Your task to perform on an android device: Clear all items from cart on walmart. Search for "apple airpods" on walmart, select the first entry, add it to the cart, then select checkout. Image 0: 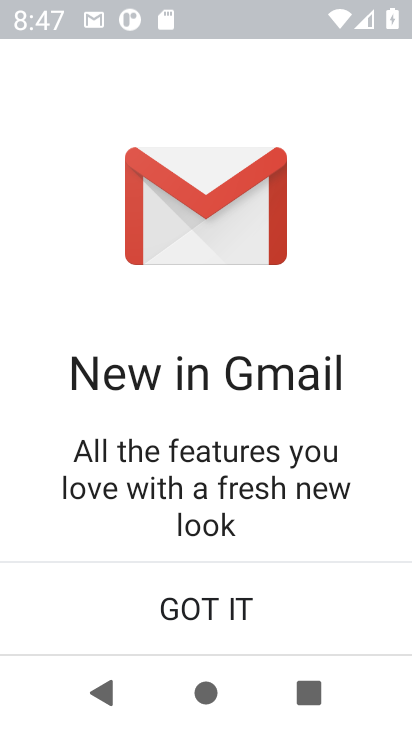
Step 0: press home button
Your task to perform on an android device: Clear all items from cart on walmart. Search for "apple airpods" on walmart, select the first entry, add it to the cart, then select checkout. Image 1: 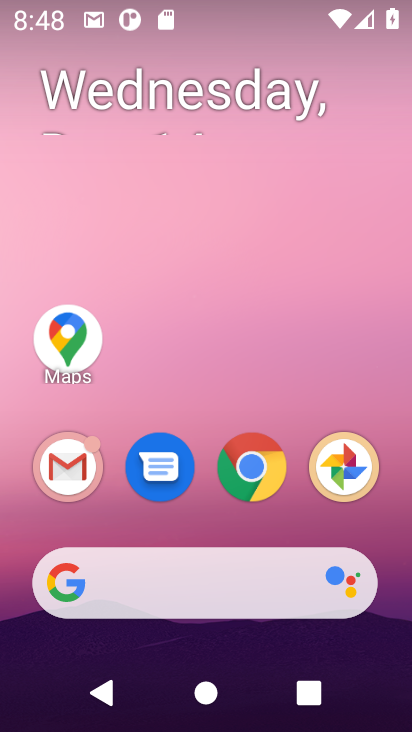
Step 1: click (267, 486)
Your task to perform on an android device: Clear all items from cart on walmart. Search for "apple airpods" on walmart, select the first entry, add it to the cart, then select checkout. Image 2: 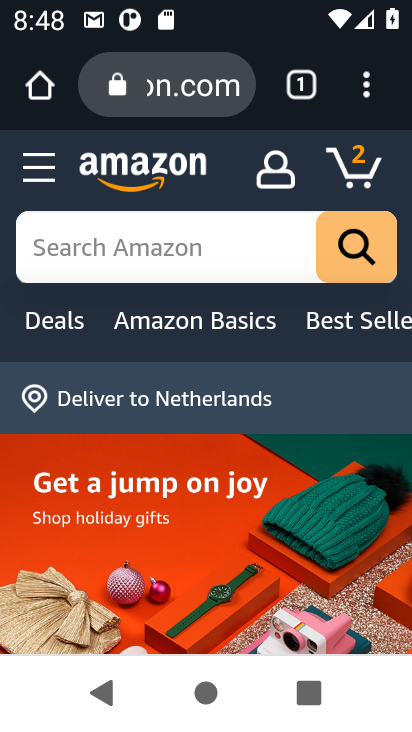
Step 2: click (172, 108)
Your task to perform on an android device: Clear all items from cart on walmart. Search for "apple airpods" on walmart, select the first entry, add it to the cart, then select checkout. Image 3: 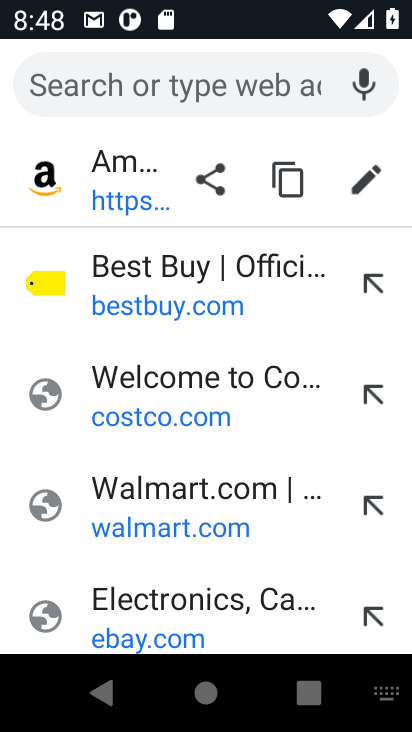
Step 3: click (207, 479)
Your task to perform on an android device: Clear all items from cart on walmart. Search for "apple airpods" on walmart, select the first entry, add it to the cart, then select checkout. Image 4: 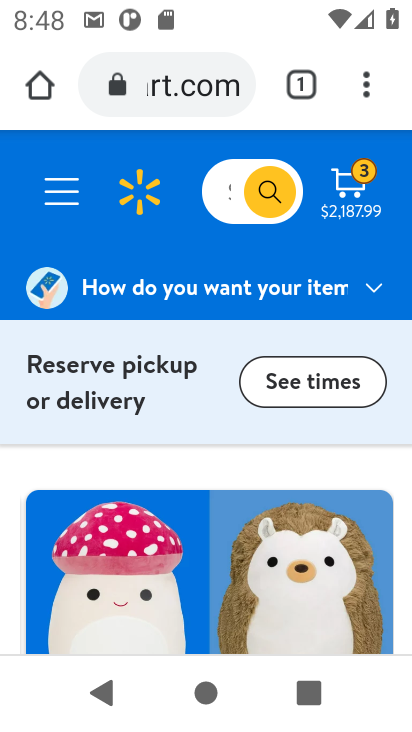
Step 4: task complete